Your task to perform on an android device: change the clock display to show seconds Image 0: 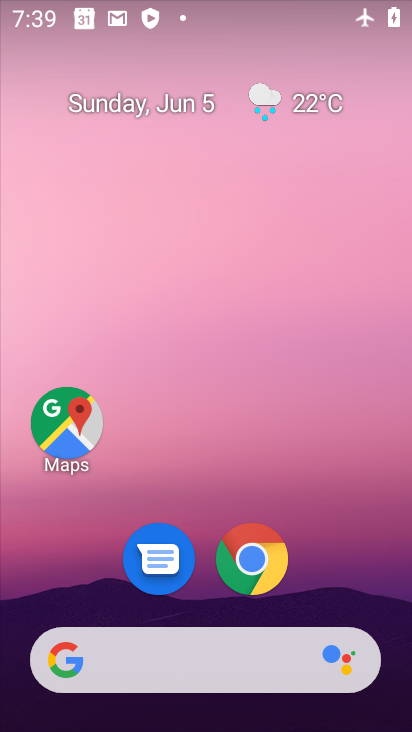
Step 0: drag from (336, 565) to (210, 183)
Your task to perform on an android device: change the clock display to show seconds Image 1: 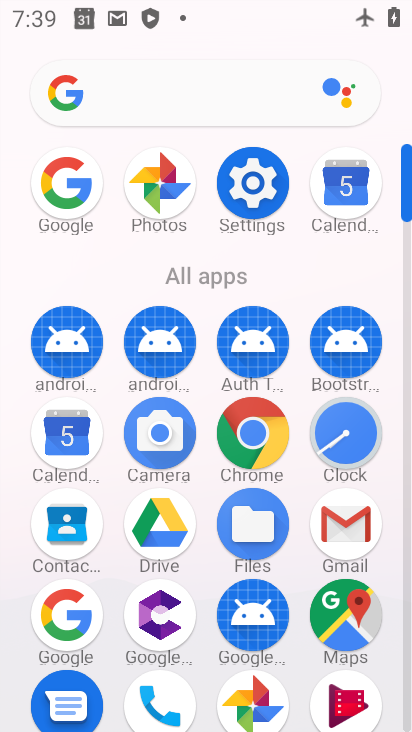
Step 1: click (345, 432)
Your task to perform on an android device: change the clock display to show seconds Image 2: 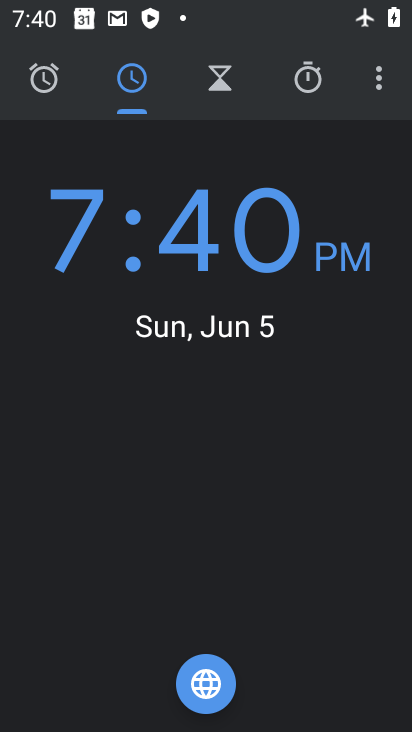
Step 2: click (379, 81)
Your task to perform on an android device: change the clock display to show seconds Image 3: 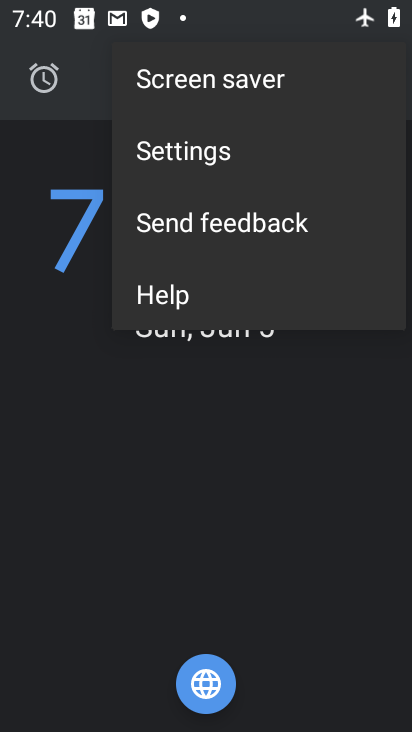
Step 3: click (218, 157)
Your task to perform on an android device: change the clock display to show seconds Image 4: 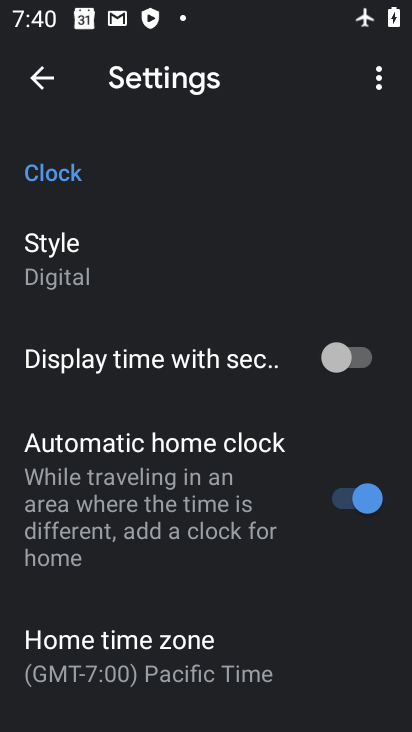
Step 4: click (338, 349)
Your task to perform on an android device: change the clock display to show seconds Image 5: 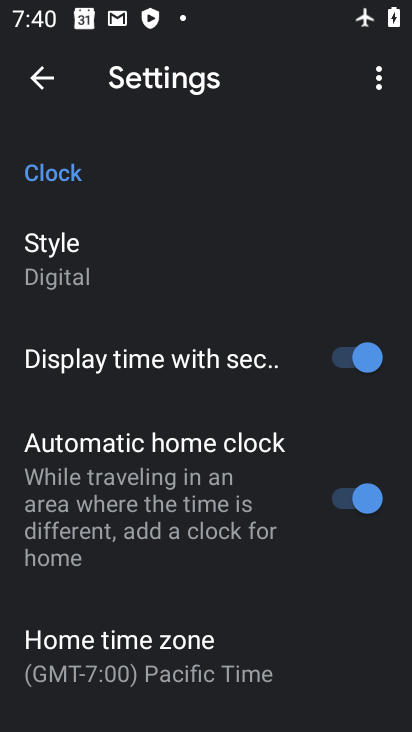
Step 5: task complete